Your task to perform on an android device: turn off airplane mode Image 0: 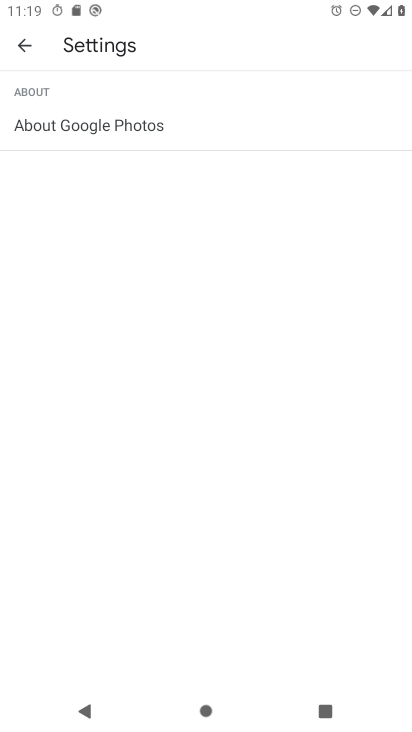
Step 0: press back button
Your task to perform on an android device: turn off airplane mode Image 1: 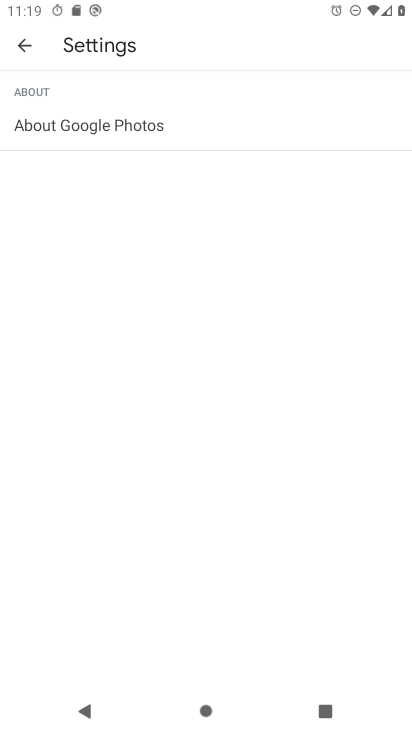
Step 1: task complete